Your task to perform on an android device: Go to accessibility settings Image 0: 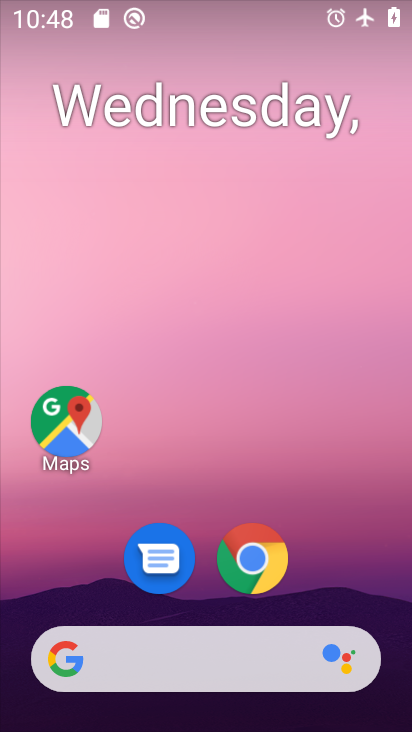
Step 0: drag from (356, 583) to (350, 155)
Your task to perform on an android device: Go to accessibility settings Image 1: 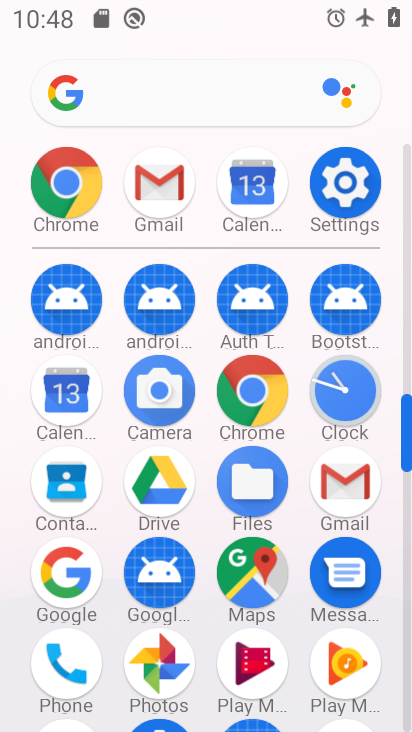
Step 1: click (346, 195)
Your task to perform on an android device: Go to accessibility settings Image 2: 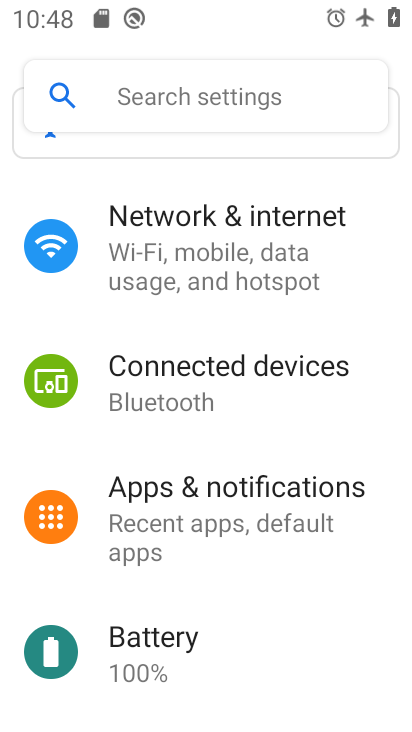
Step 2: drag from (351, 581) to (371, 400)
Your task to perform on an android device: Go to accessibility settings Image 3: 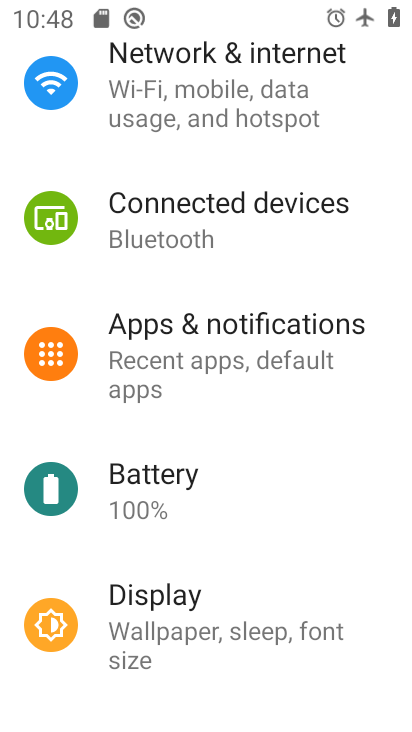
Step 3: drag from (364, 549) to (353, 415)
Your task to perform on an android device: Go to accessibility settings Image 4: 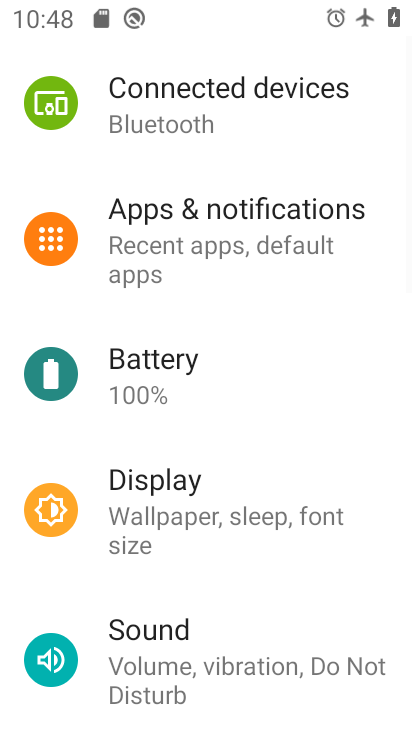
Step 4: drag from (350, 588) to (360, 454)
Your task to perform on an android device: Go to accessibility settings Image 5: 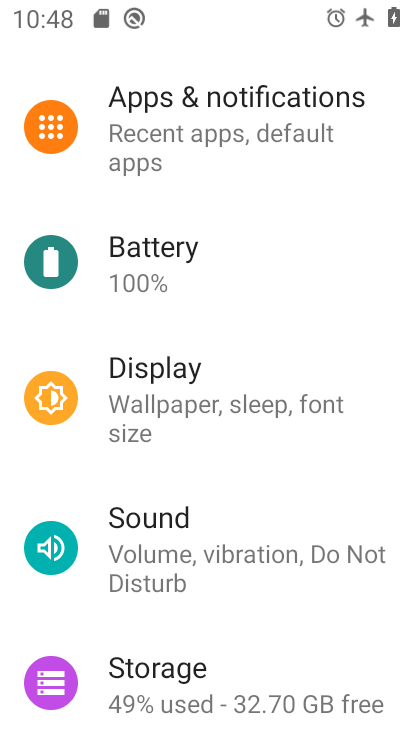
Step 5: drag from (337, 636) to (333, 470)
Your task to perform on an android device: Go to accessibility settings Image 6: 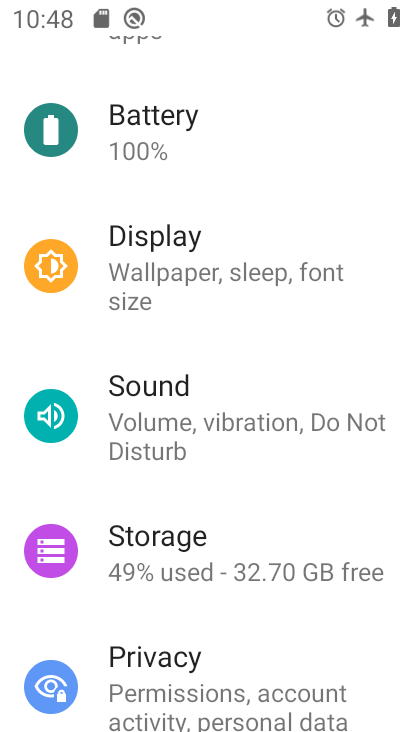
Step 6: drag from (338, 650) to (341, 483)
Your task to perform on an android device: Go to accessibility settings Image 7: 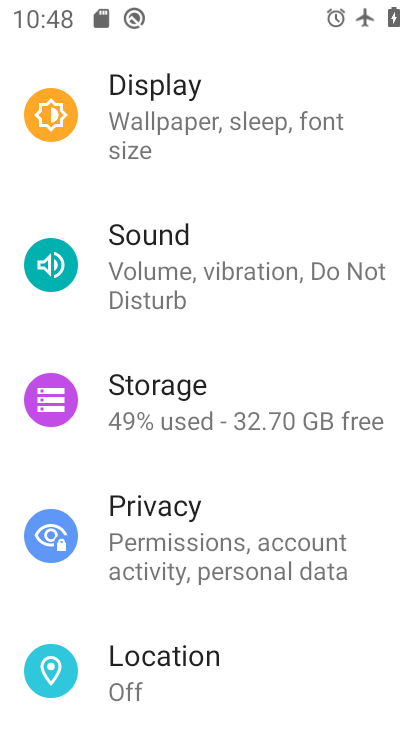
Step 7: drag from (342, 627) to (345, 423)
Your task to perform on an android device: Go to accessibility settings Image 8: 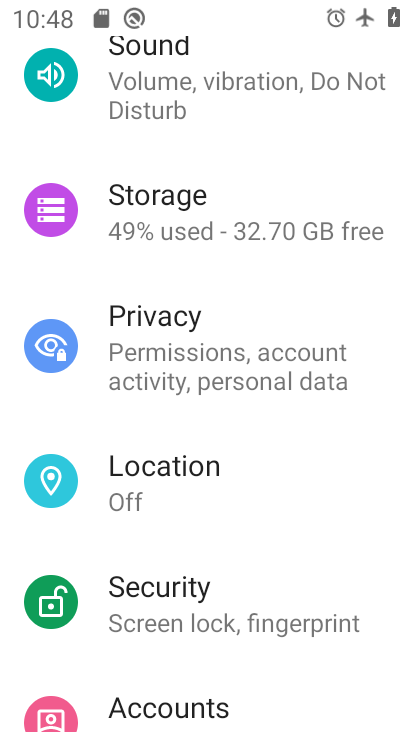
Step 8: drag from (360, 598) to (352, 444)
Your task to perform on an android device: Go to accessibility settings Image 9: 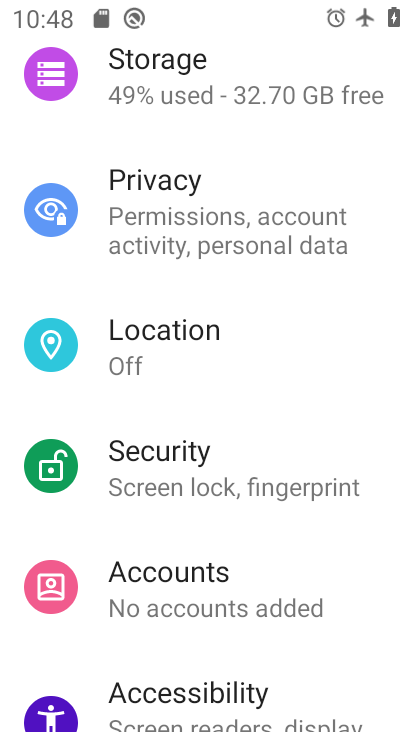
Step 9: drag from (368, 653) to (367, 482)
Your task to perform on an android device: Go to accessibility settings Image 10: 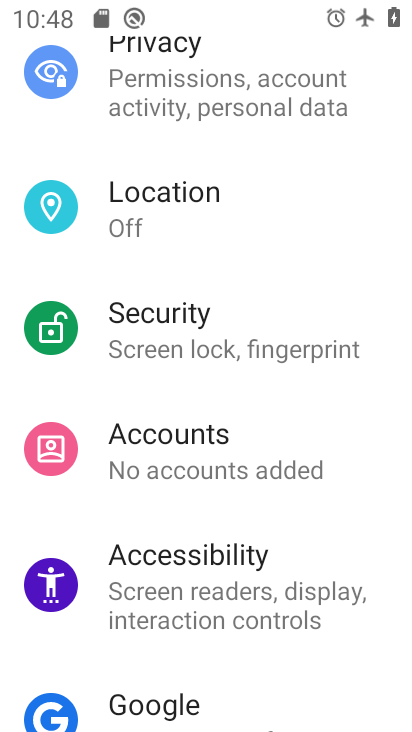
Step 10: drag from (366, 641) to (367, 462)
Your task to perform on an android device: Go to accessibility settings Image 11: 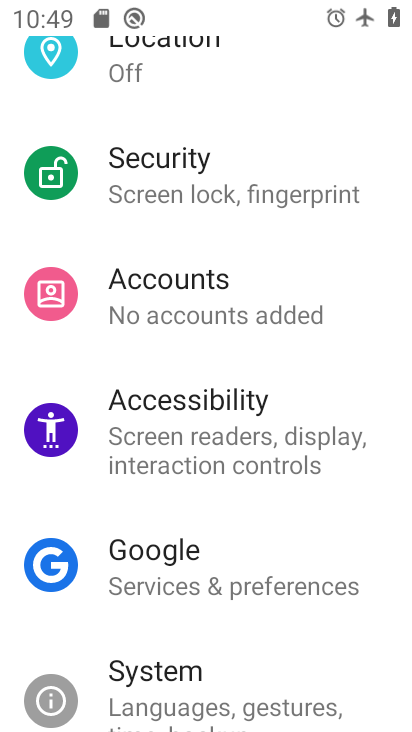
Step 11: click (293, 450)
Your task to perform on an android device: Go to accessibility settings Image 12: 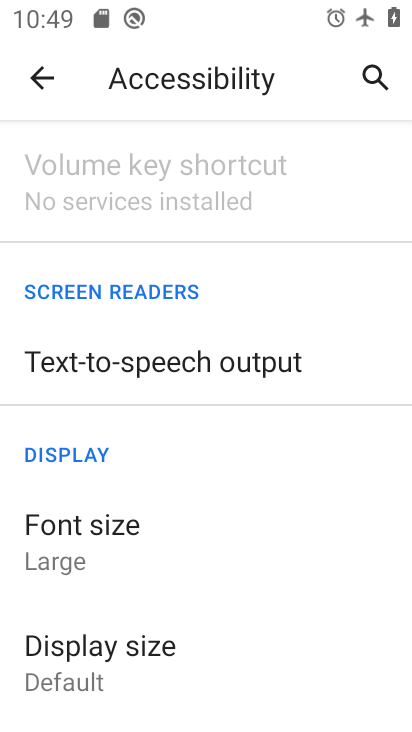
Step 12: task complete